Your task to perform on an android device: When is my next appointment? Image 0: 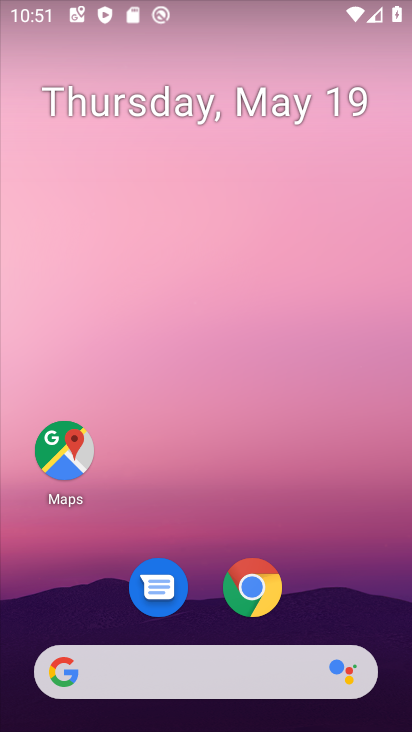
Step 0: drag from (253, 660) to (307, 78)
Your task to perform on an android device: When is my next appointment? Image 1: 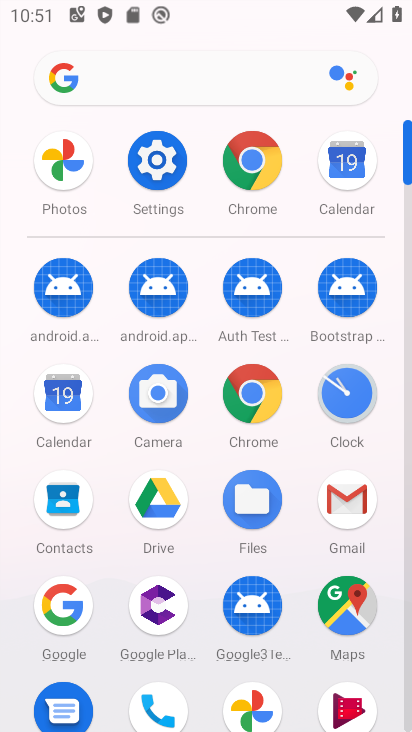
Step 1: click (55, 407)
Your task to perform on an android device: When is my next appointment? Image 2: 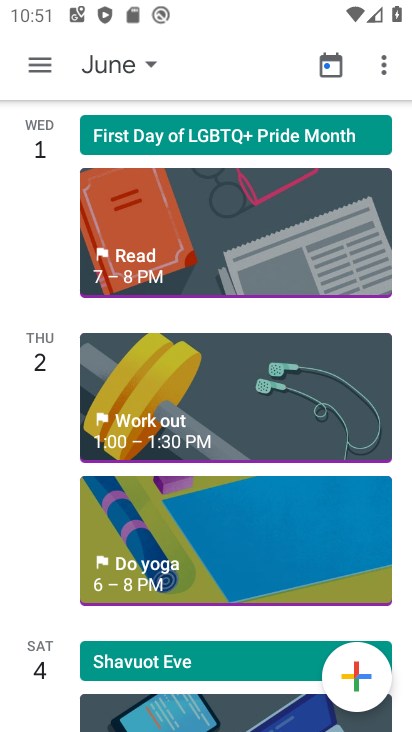
Step 2: click (107, 69)
Your task to perform on an android device: When is my next appointment? Image 3: 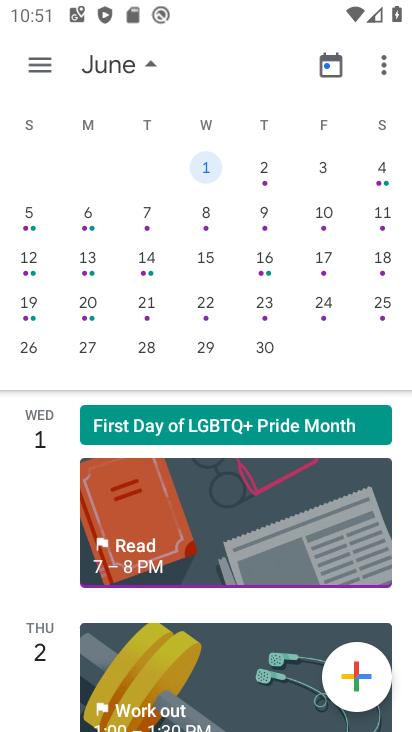
Step 3: drag from (57, 188) to (400, 157)
Your task to perform on an android device: When is my next appointment? Image 4: 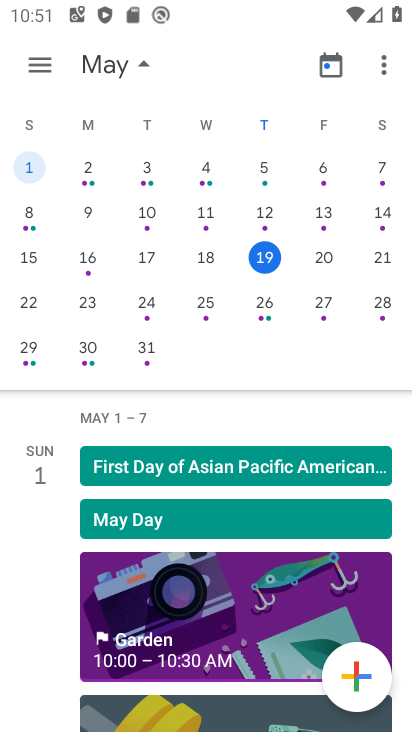
Step 4: click (275, 258)
Your task to perform on an android device: When is my next appointment? Image 5: 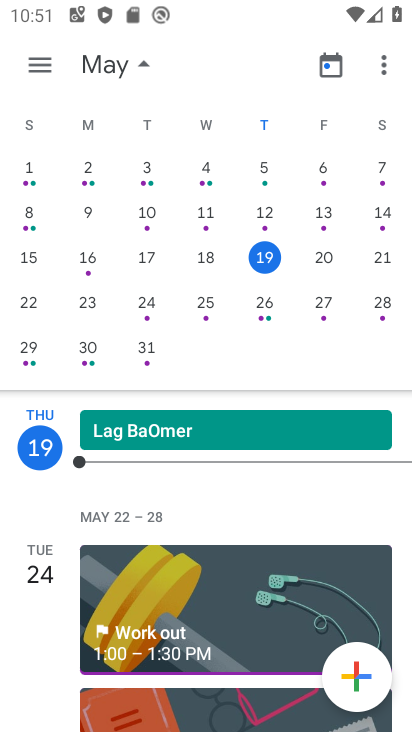
Step 5: click (265, 263)
Your task to perform on an android device: When is my next appointment? Image 6: 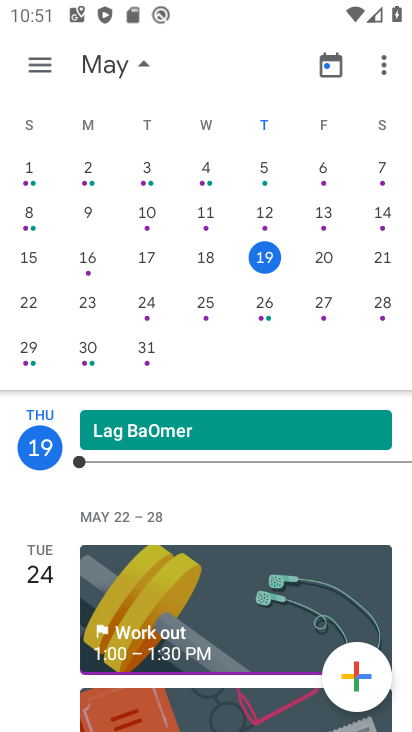
Step 6: click (133, 61)
Your task to perform on an android device: When is my next appointment? Image 7: 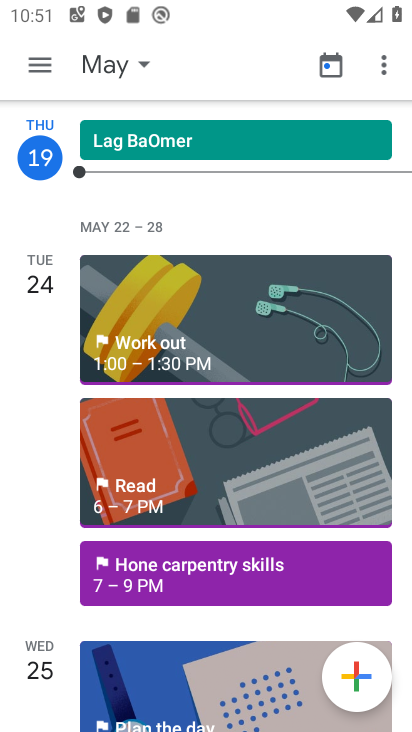
Step 7: task complete